Your task to perform on an android device: toggle airplane mode Image 0: 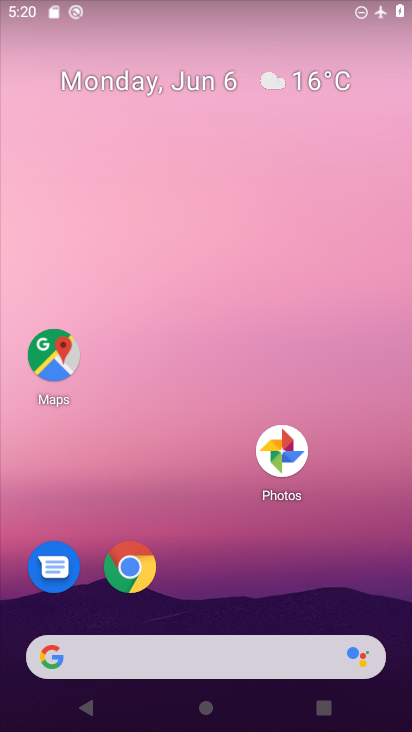
Step 0: drag from (249, 682) to (177, 44)
Your task to perform on an android device: toggle airplane mode Image 1: 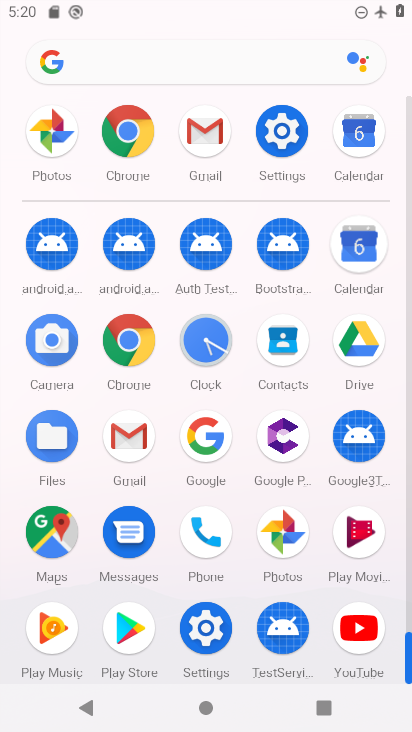
Step 1: click (265, 117)
Your task to perform on an android device: toggle airplane mode Image 2: 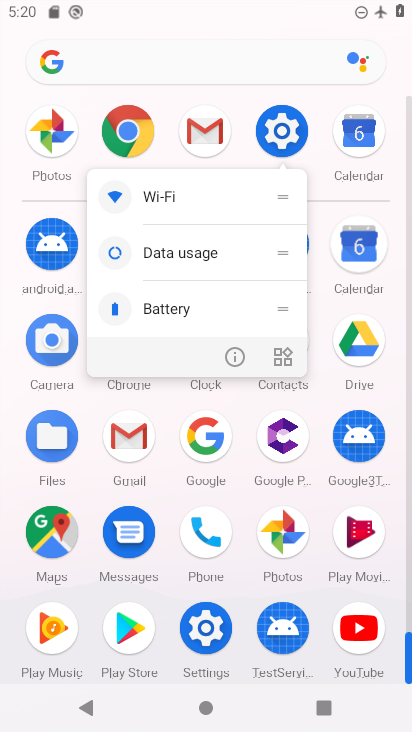
Step 2: click (291, 137)
Your task to perform on an android device: toggle airplane mode Image 3: 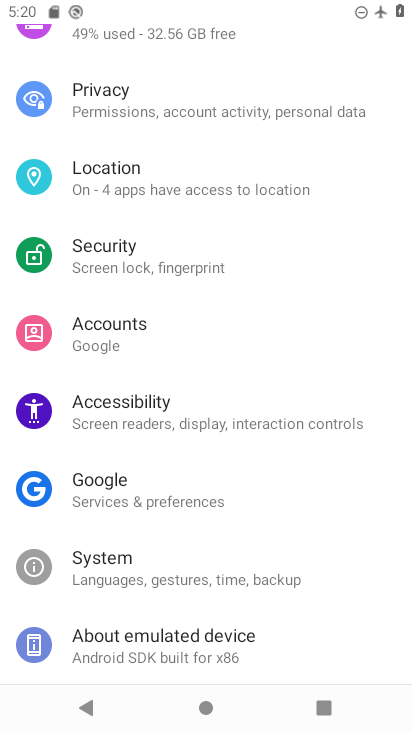
Step 3: drag from (112, 132) to (181, 551)
Your task to perform on an android device: toggle airplane mode Image 4: 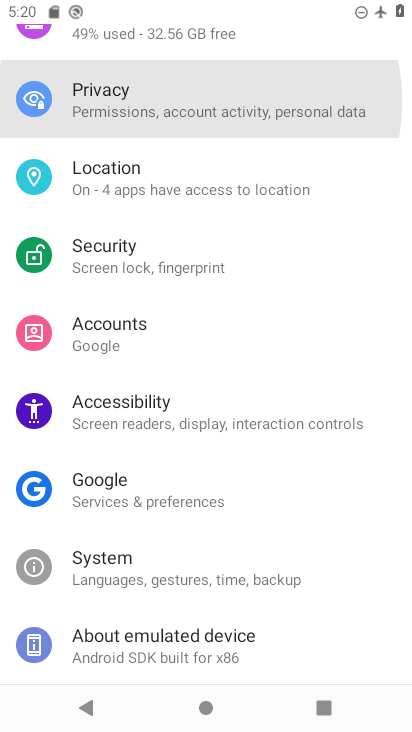
Step 4: drag from (136, 182) to (199, 599)
Your task to perform on an android device: toggle airplane mode Image 5: 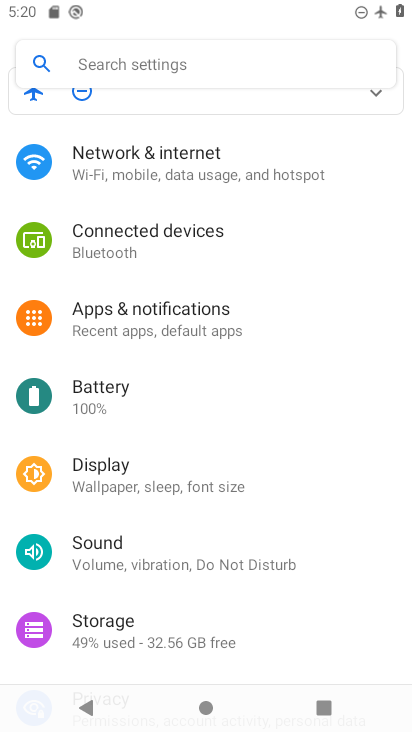
Step 5: drag from (154, 248) to (162, 489)
Your task to perform on an android device: toggle airplane mode Image 6: 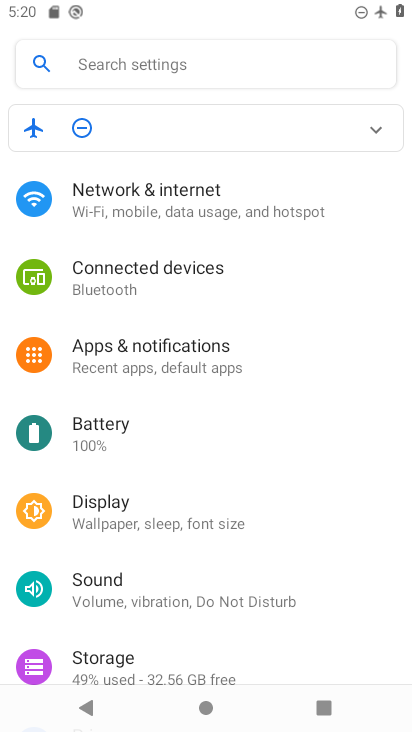
Step 6: click (153, 201)
Your task to perform on an android device: toggle airplane mode Image 7: 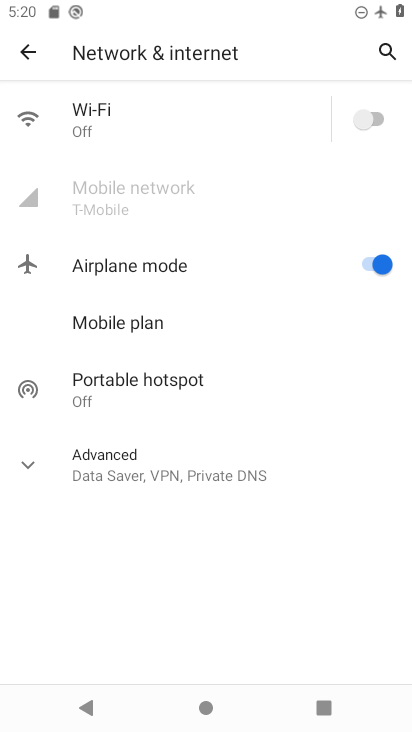
Step 7: click (364, 120)
Your task to perform on an android device: toggle airplane mode Image 8: 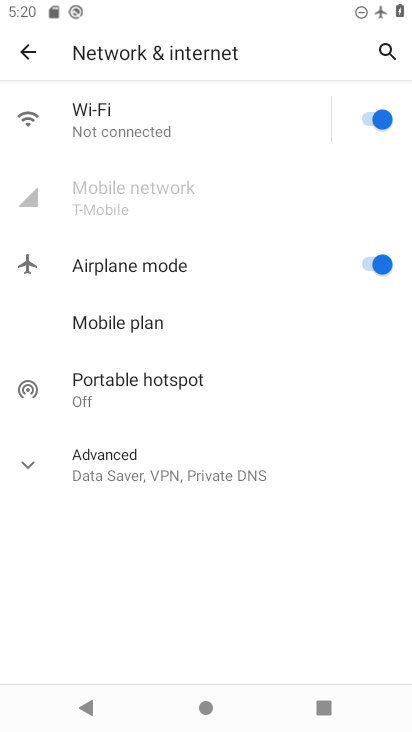
Step 8: click (374, 261)
Your task to perform on an android device: toggle airplane mode Image 9: 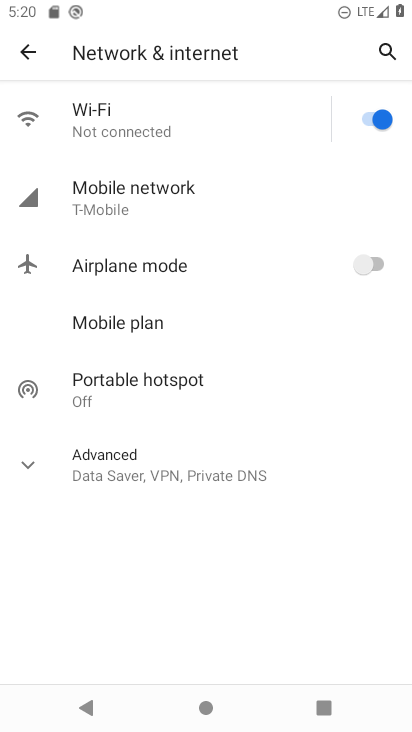
Step 9: task complete